Your task to perform on an android device: Search for the most popular books on Goodreads Image 0: 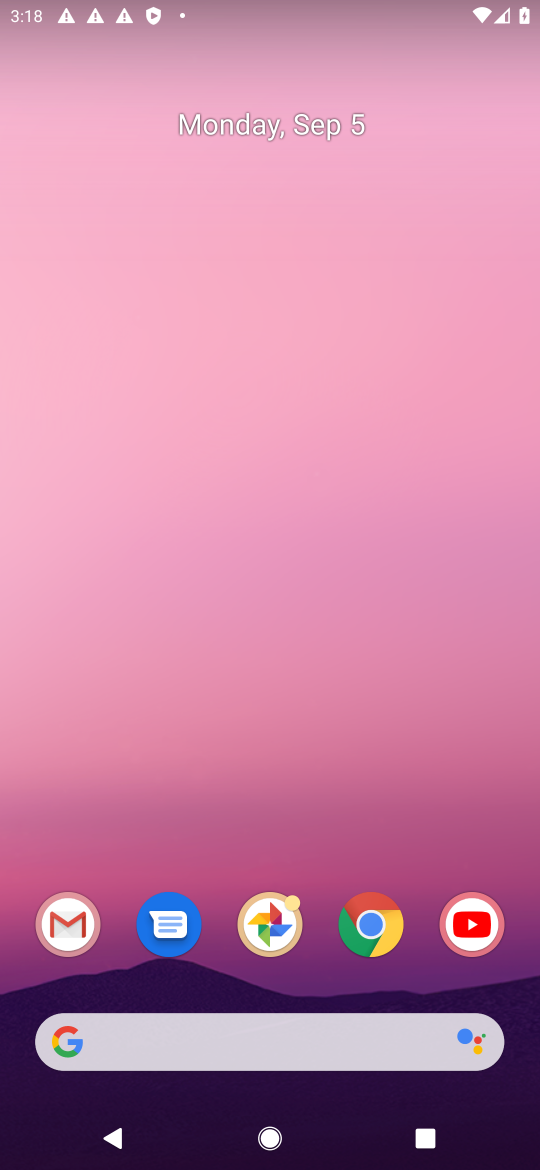
Step 0: click (373, 945)
Your task to perform on an android device: Search for the most popular books on Goodreads Image 1: 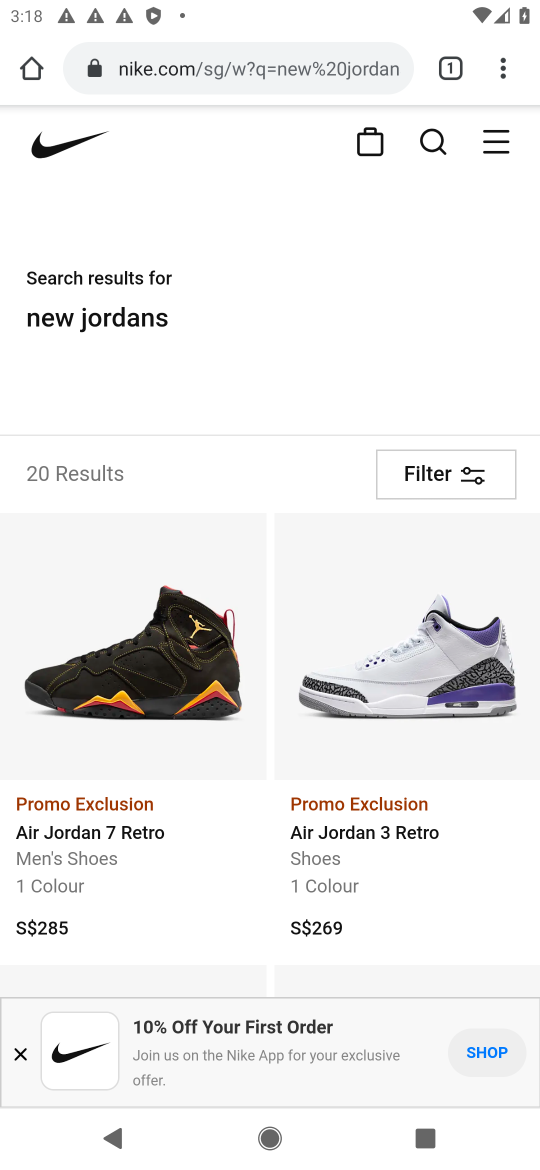
Step 1: click (357, 77)
Your task to perform on an android device: Search for the most popular books on Goodreads Image 2: 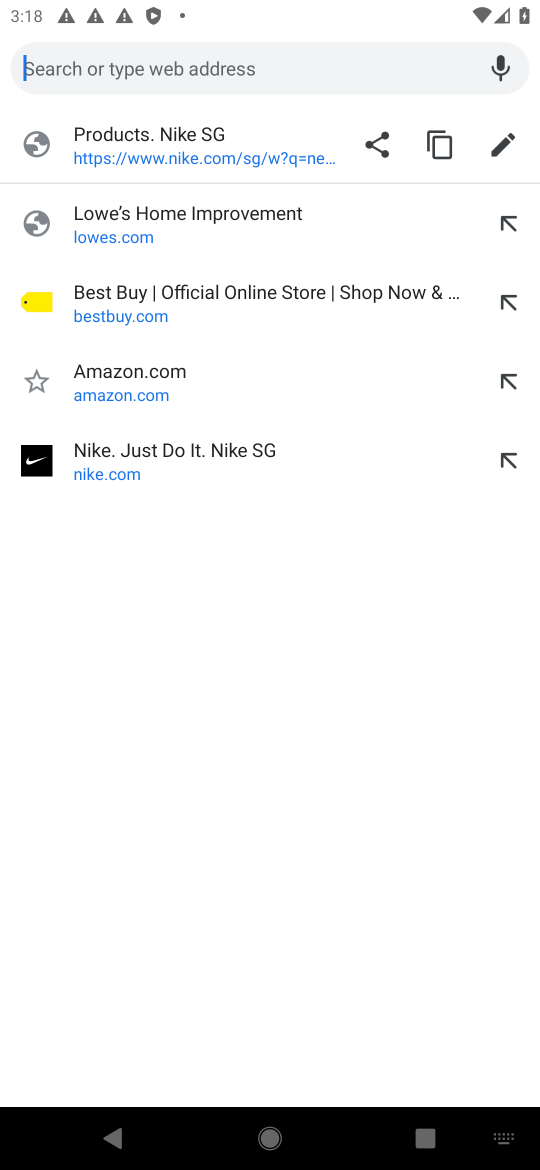
Step 2: type "goodreads"
Your task to perform on an android device: Search for the most popular books on Goodreads Image 3: 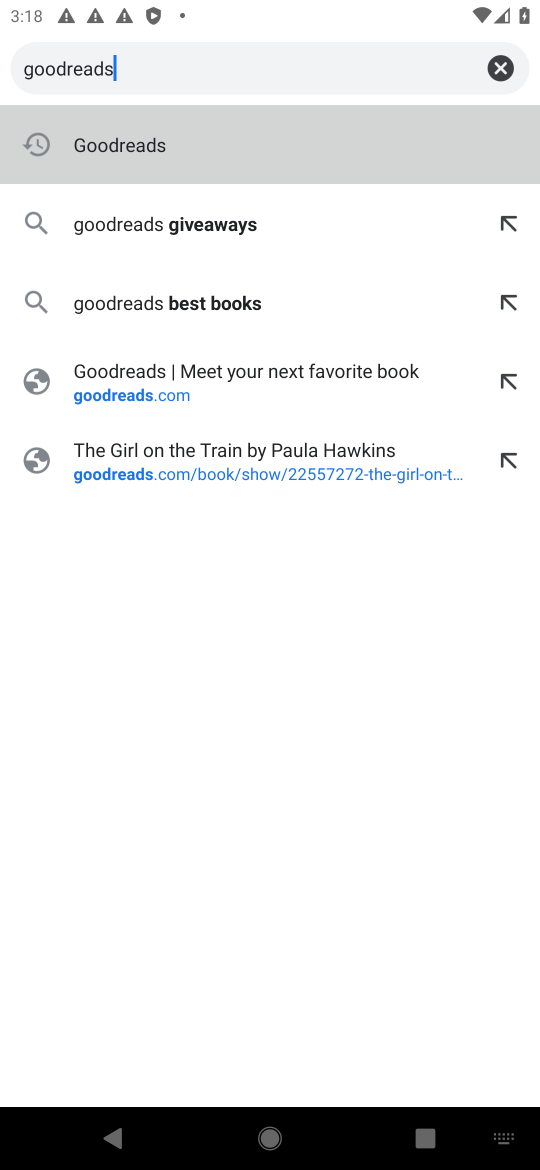
Step 3: click (234, 162)
Your task to perform on an android device: Search for the most popular books on Goodreads Image 4: 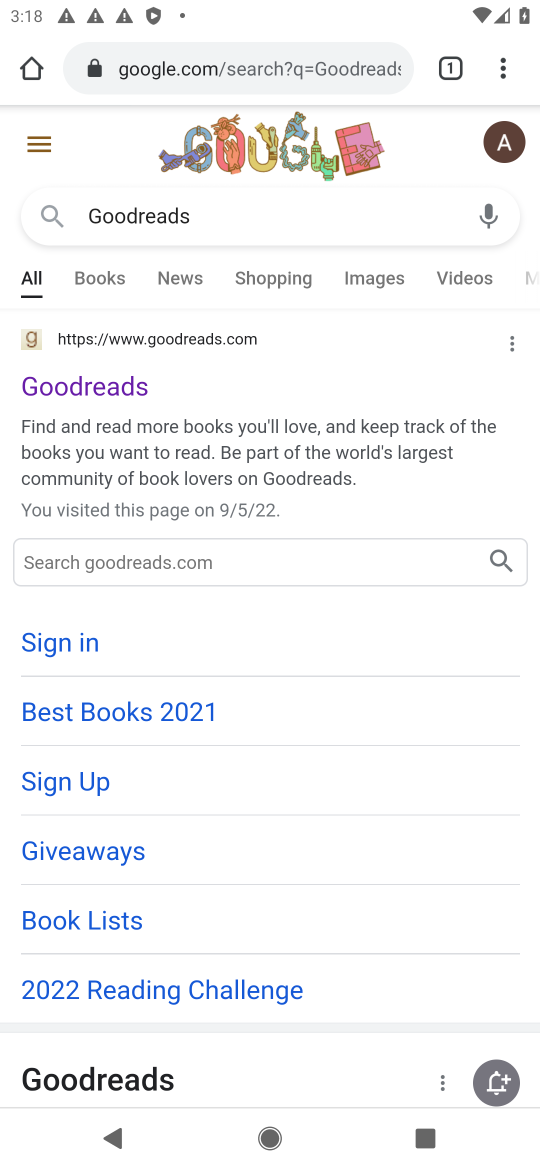
Step 4: click (100, 392)
Your task to perform on an android device: Search for the most popular books on Goodreads Image 5: 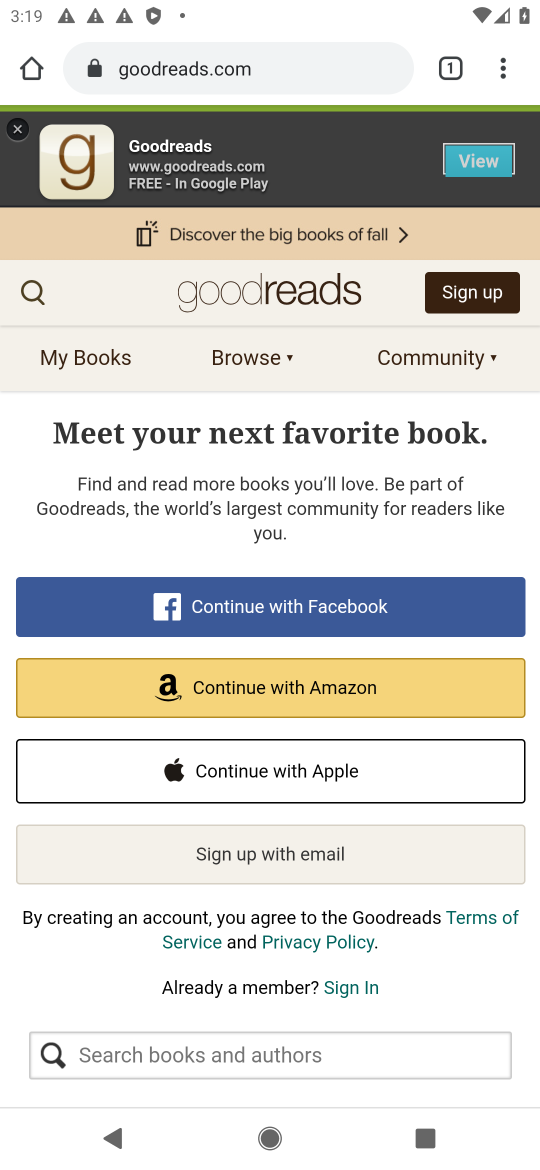
Step 5: click (32, 289)
Your task to perform on an android device: Search for the most popular books on Goodreads Image 6: 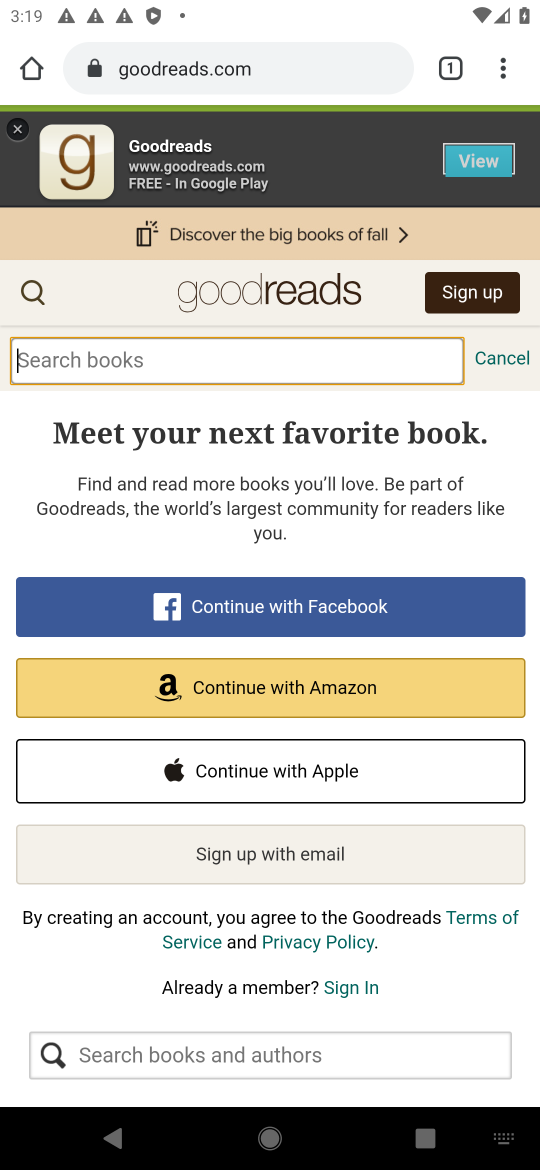
Step 6: click (328, 358)
Your task to perform on an android device: Search for the most popular books on Goodreads Image 7: 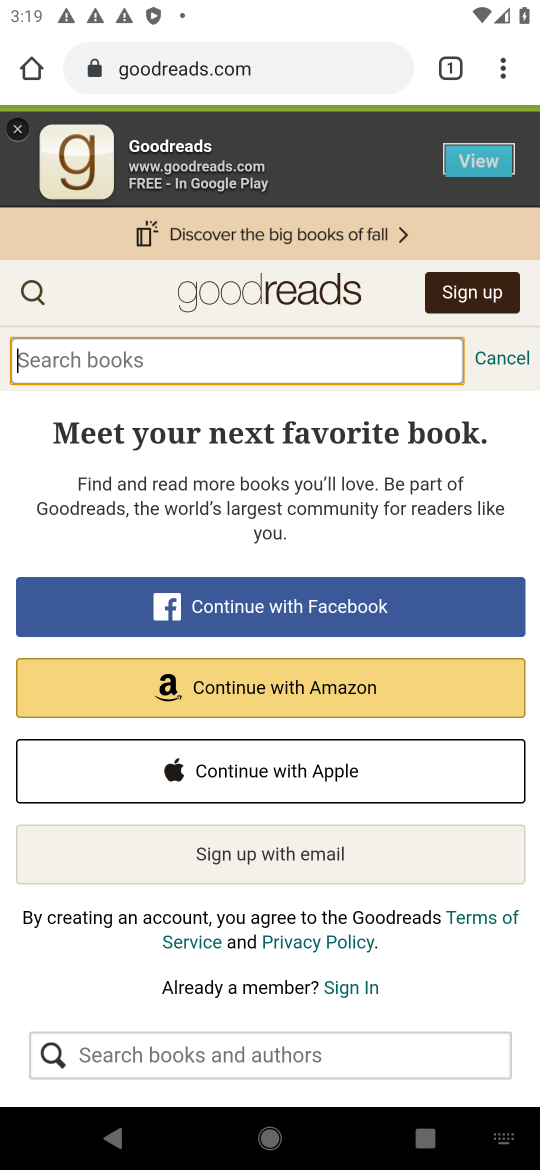
Step 7: type "most popular books"
Your task to perform on an android device: Search for the most popular books on Goodreads Image 8: 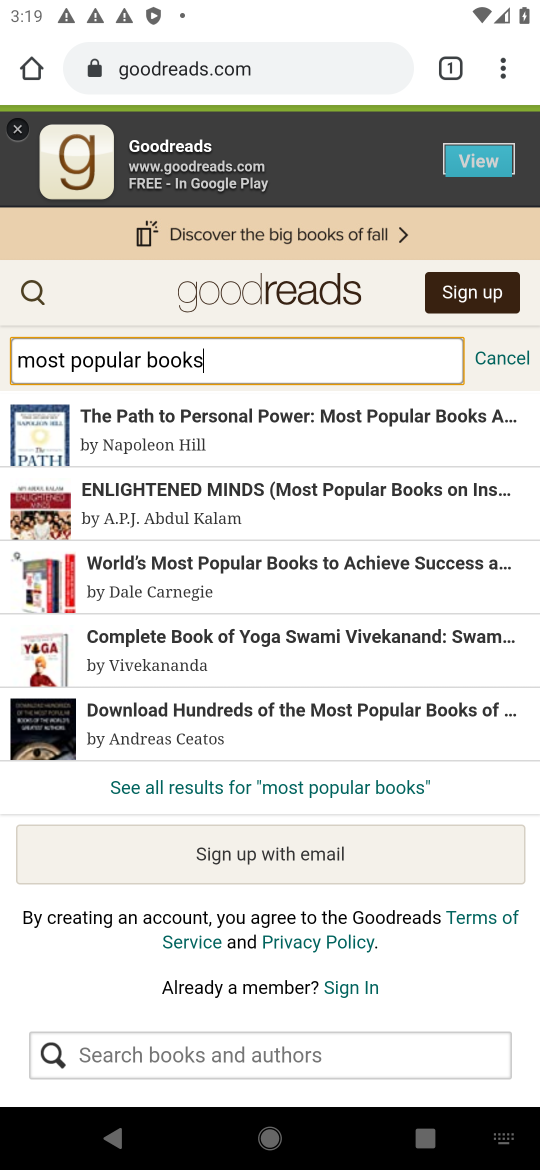
Step 8: task complete